Your task to perform on an android device: toggle notification dots Image 0: 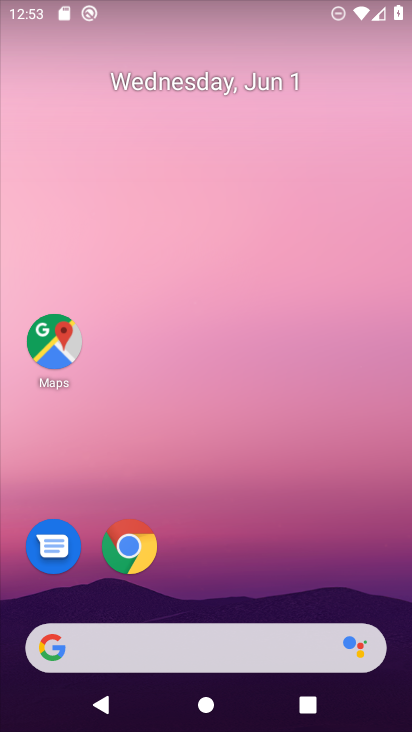
Step 0: drag from (212, 579) to (64, 150)
Your task to perform on an android device: toggle notification dots Image 1: 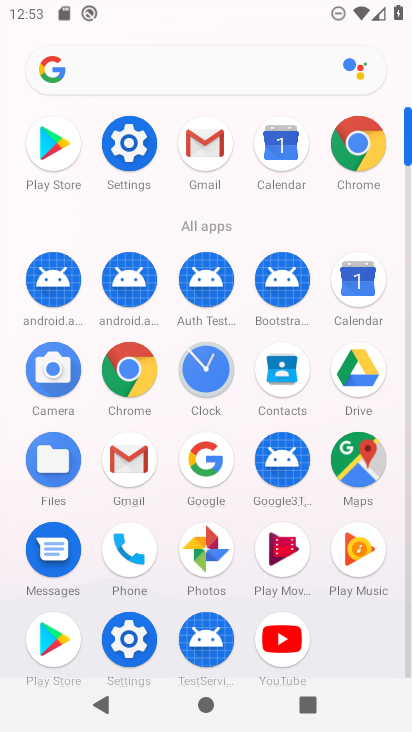
Step 1: click (140, 625)
Your task to perform on an android device: toggle notification dots Image 2: 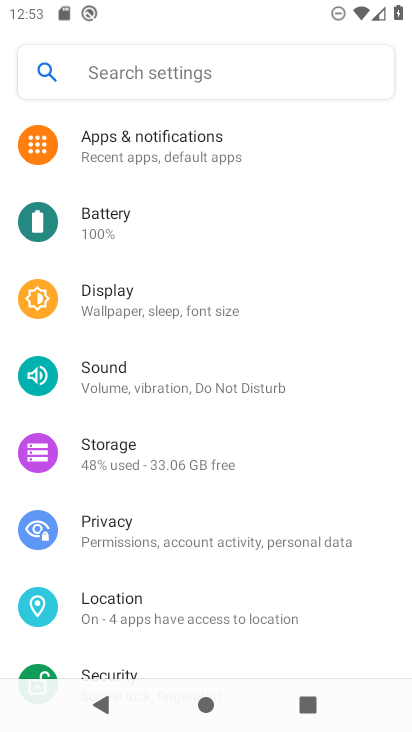
Step 2: click (181, 149)
Your task to perform on an android device: toggle notification dots Image 3: 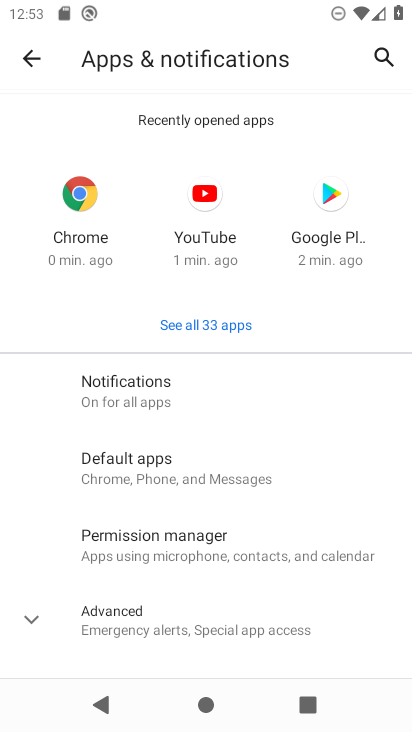
Step 3: click (129, 389)
Your task to perform on an android device: toggle notification dots Image 4: 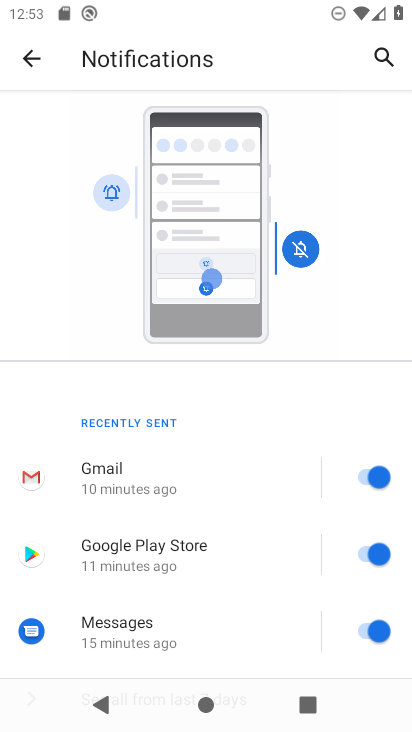
Step 4: drag from (131, 652) to (114, 221)
Your task to perform on an android device: toggle notification dots Image 5: 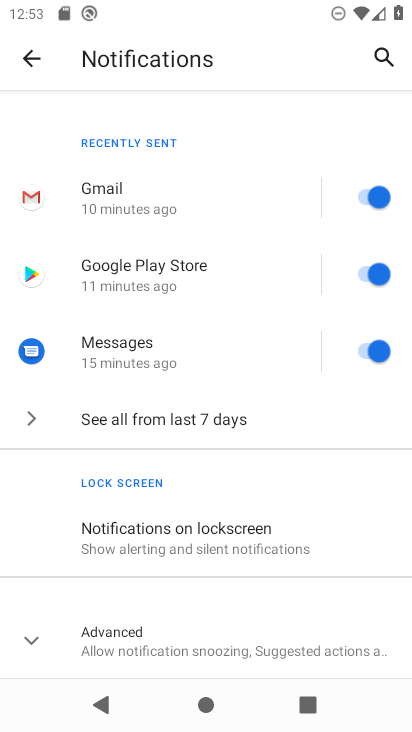
Step 5: click (87, 654)
Your task to perform on an android device: toggle notification dots Image 6: 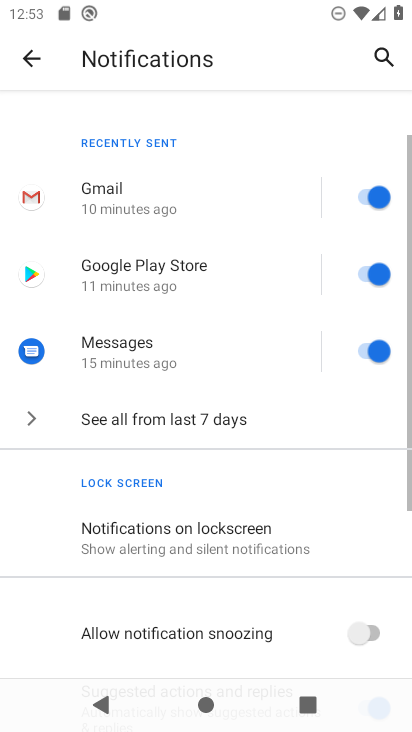
Step 6: drag from (87, 654) to (79, 215)
Your task to perform on an android device: toggle notification dots Image 7: 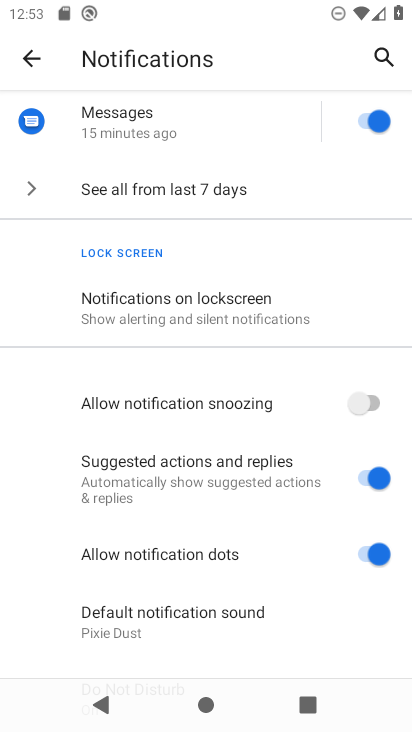
Step 7: click (376, 550)
Your task to perform on an android device: toggle notification dots Image 8: 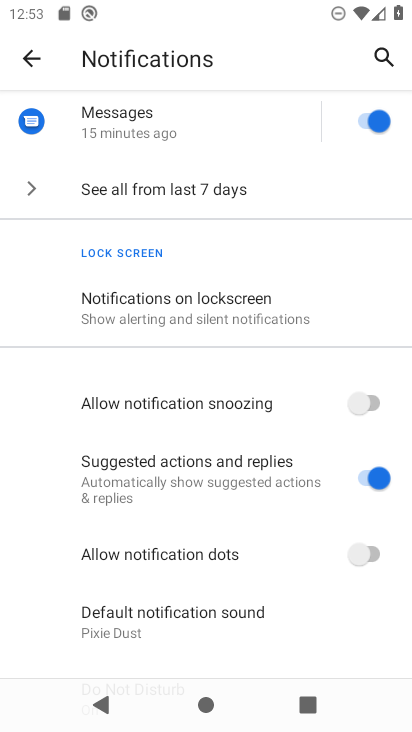
Step 8: task complete